Your task to perform on an android device: turn on data saver in the chrome app Image 0: 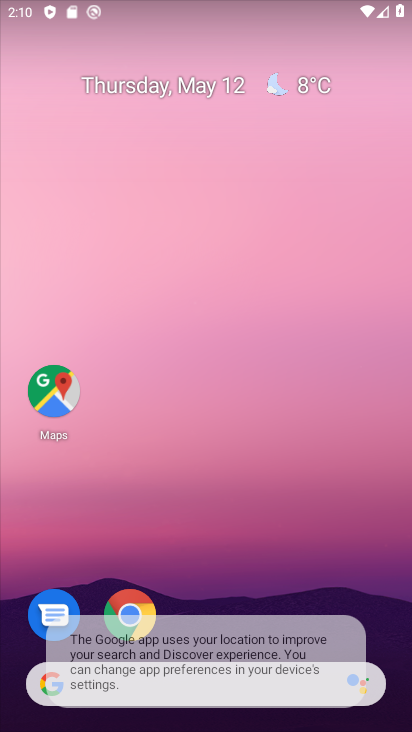
Step 0: click (141, 621)
Your task to perform on an android device: turn on data saver in the chrome app Image 1: 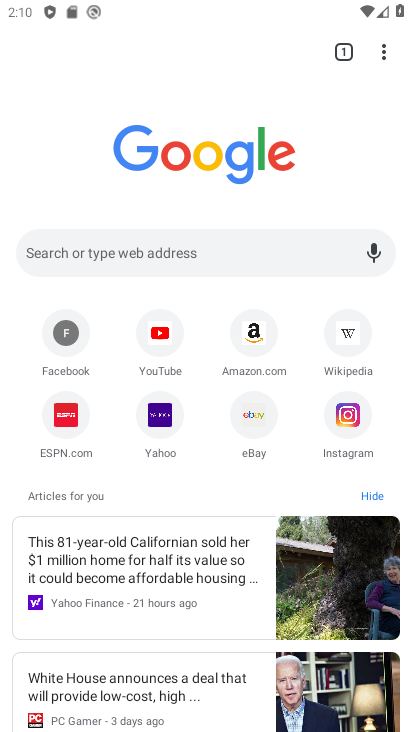
Step 1: drag from (390, 63) to (229, 466)
Your task to perform on an android device: turn on data saver in the chrome app Image 2: 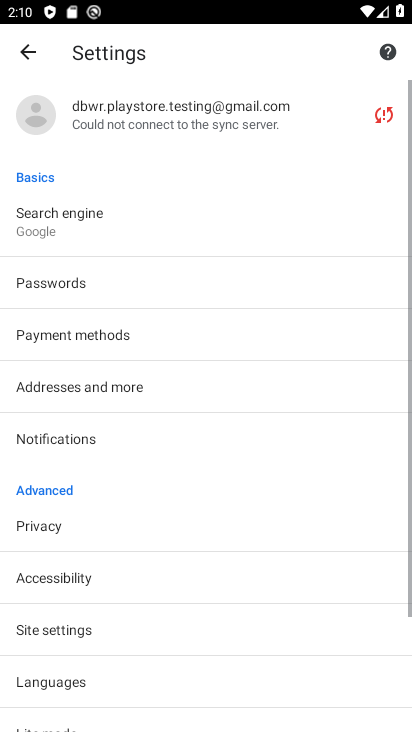
Step 2: drag from (154, 620) to (252, 295)
Your task to perform on an android device: turn on data saver in the chrome app Image 3: 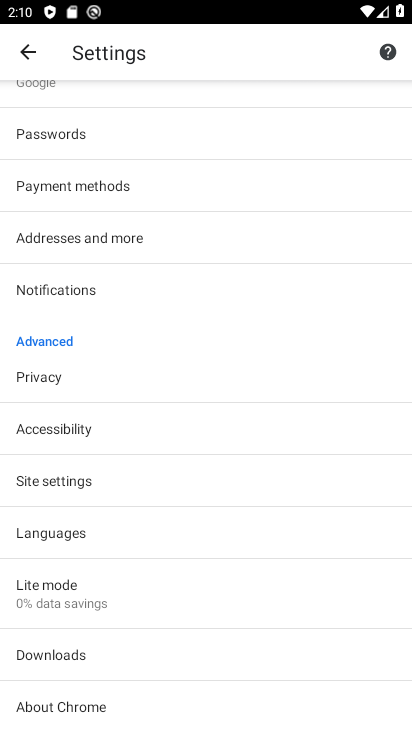
Step 3: click (128, 609)
Your task to perform on an android device: turn on data saver in the chrome app Image 4: 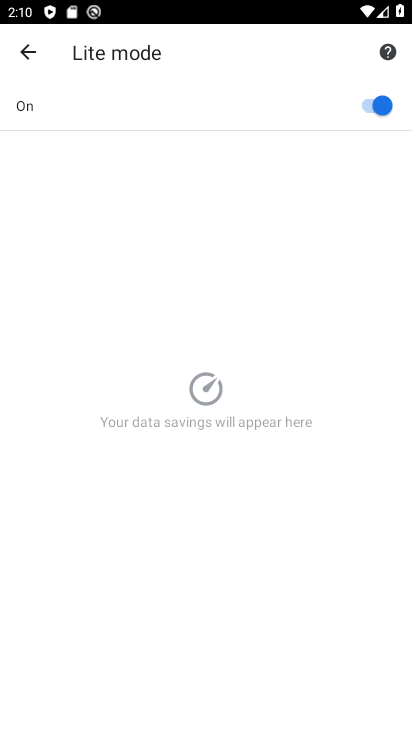
Step 4: task complete